Your task to perform on an android device: check battery use Image 0: 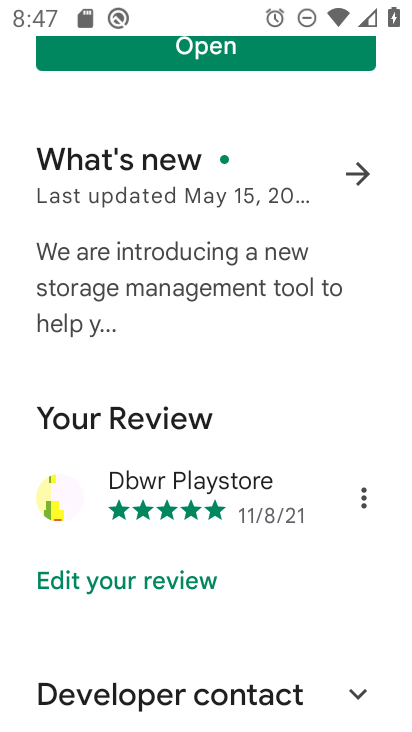
Step 0: press home button
Your task to perform on an android device: check battery use Image 1: 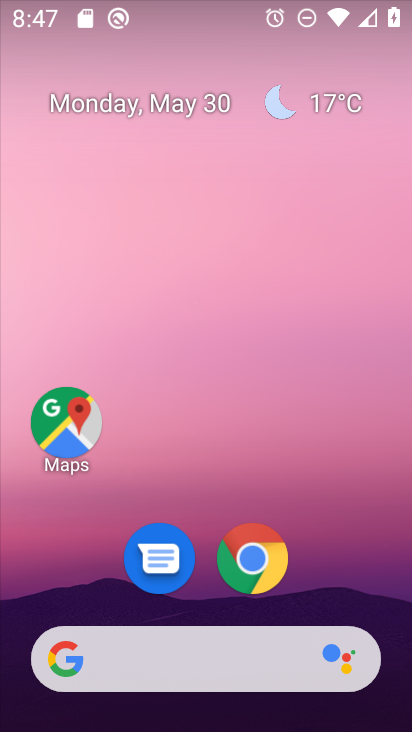
Step 1: drag from (320, 526) to (224, 178)
Your task to perform on an android device: check battery use Image 2: 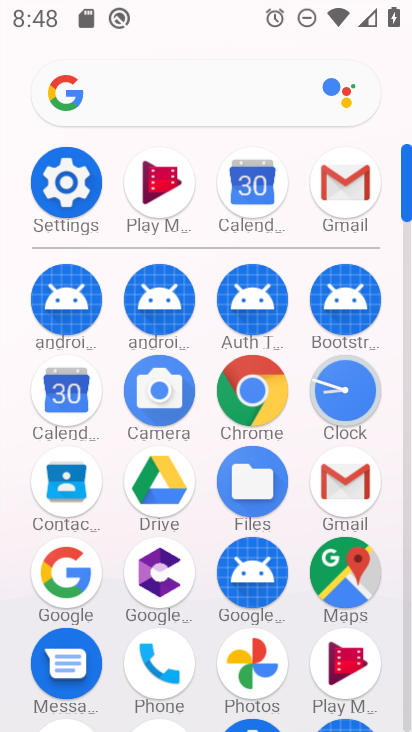
Step 2: click (59, 167)
Your task to perform on an android device: check battery use Image 3: 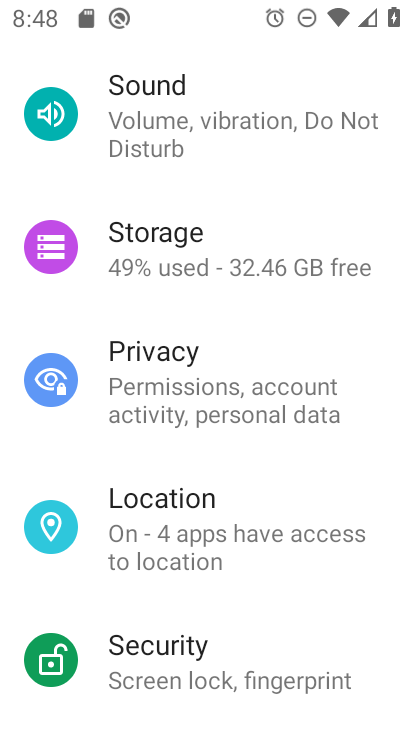
Step 3: drag from (234, 193) to (219, 671)
Your task to perform on an android device: check battery use Image 4: 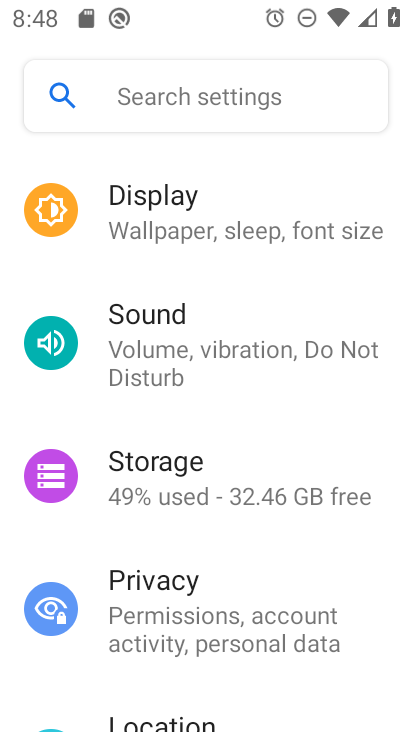
Step 4: drag from (179, 279) to (220, 700)
Your task to perform on an android device: check battery use Image 5: 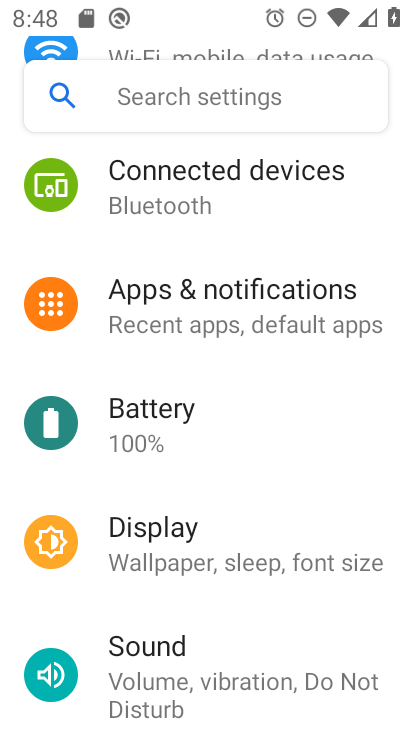
Step 5: click (160, 407)
Your task to perform on an android device: check battery use Image 6: 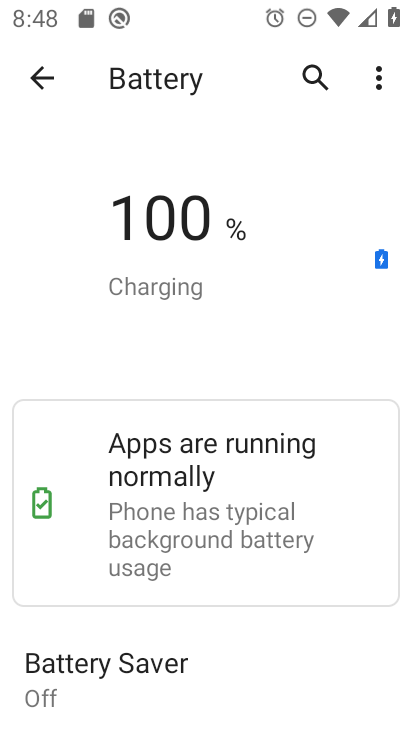
Step 6: task complete